Your task to perform on an android device: turn off airplane mode Image 0: 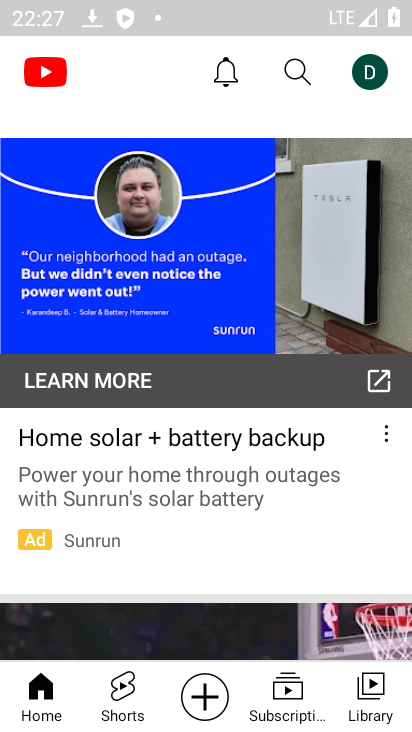
Step 0: press home button
Your task to perform on an android device: turn off airplane mode Image 1: 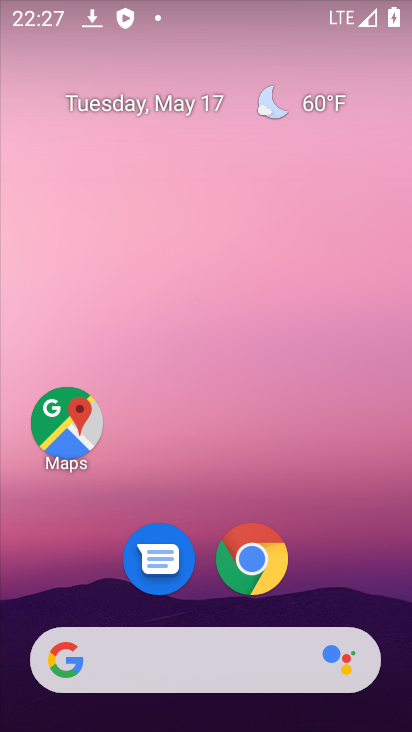
Step 1: drag from (280, 699) to (315, 207)
Your task to perform on an android device: turn off airplane mode Image 2: 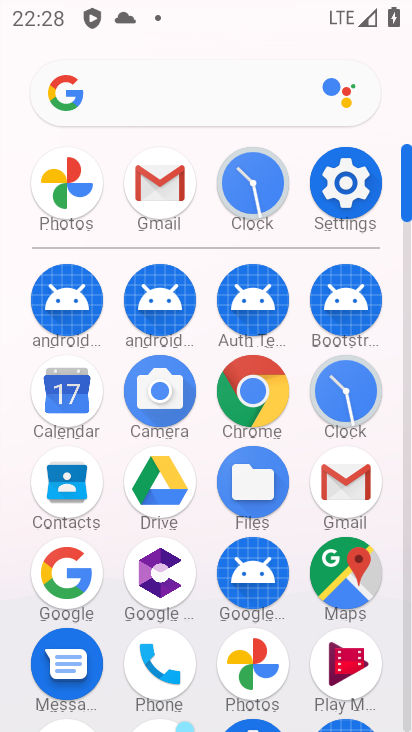
Step 2: click (344, 198)
Your task to perform on an android device: turn off airplane mode Image 3: 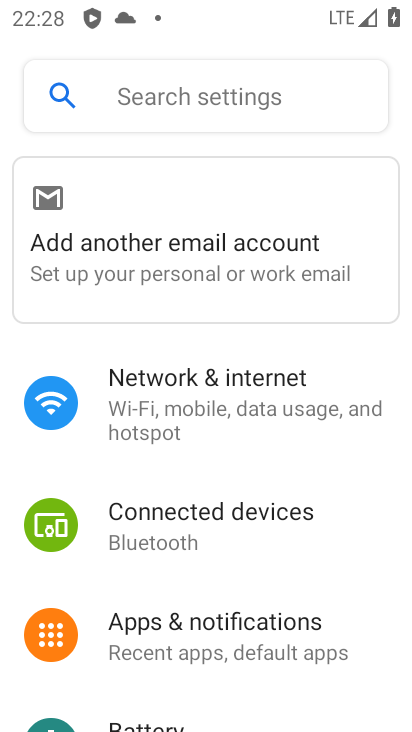
Step 3: click (174, 392)
Your task to perform on an android device: turn off airplane mode Image 4: 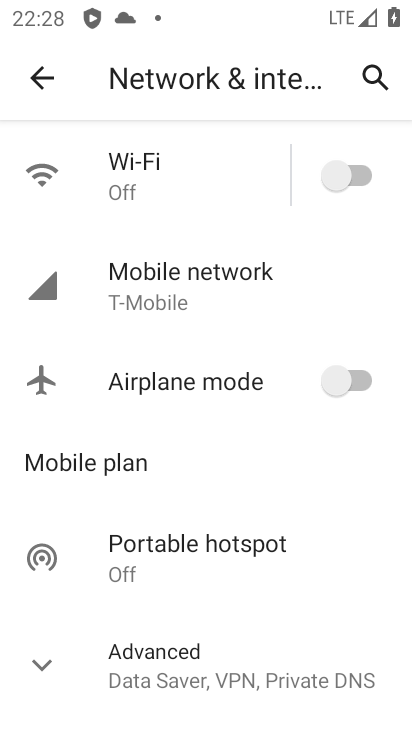
Step 4: task complete